Your task to perform on an android device: Open internet settings Image 0: 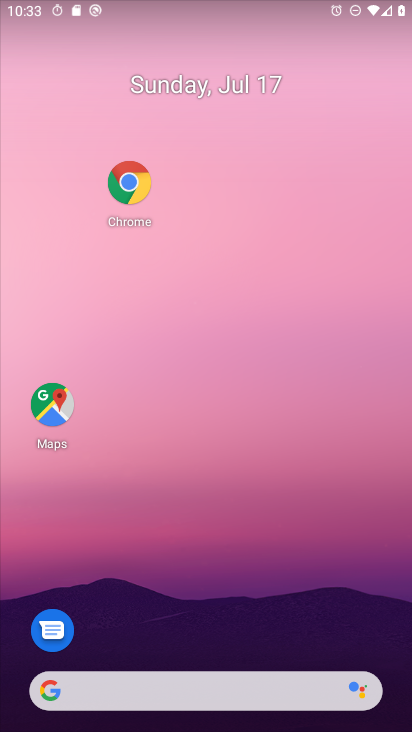
Step 0: click (331, 687)
Your task to perform on an android device: Open internet settings Image 1: 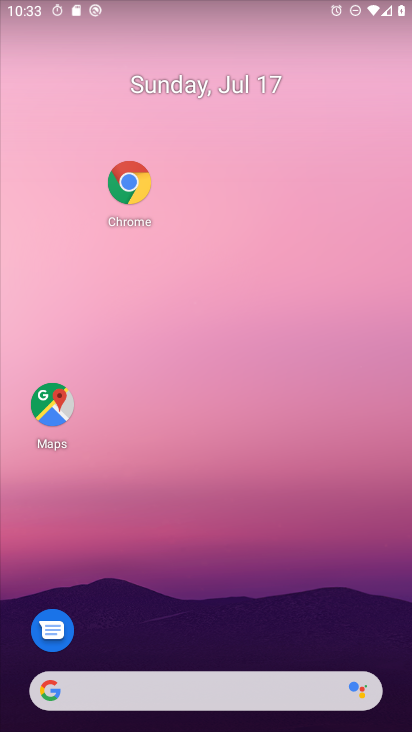
Step 1: drag from (176, 507) to (185, 195)
Your task to perform on an android device: Open internet settings Image 2: 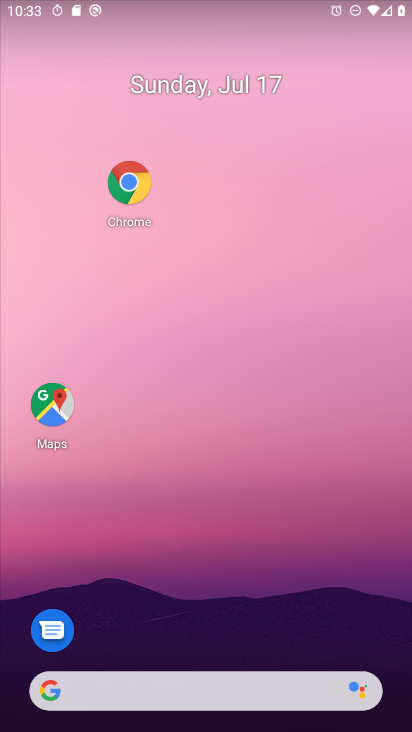
Step 2: drag from (240, 553) to (236, 66)
Your task to perform on an android device: Open internet settings Image 3: 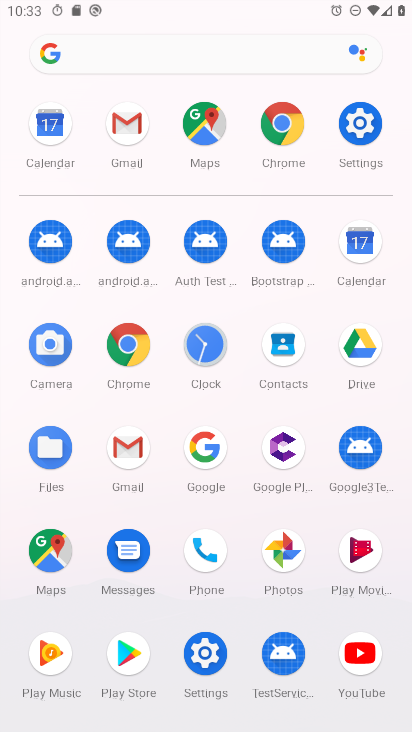
Step 3: click (368, 106)
Your task to perform on an android device: Open internet settings Image 4: 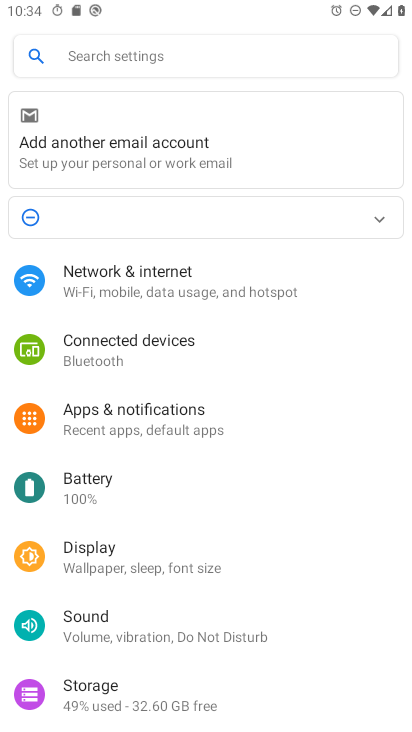
Step 4: click (158, 294)
Your task to perform on an android device: Open internet settings Image 5: 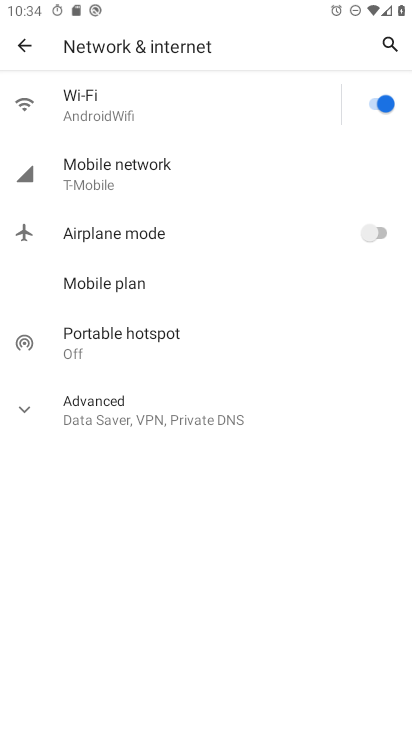
Step 5: task complete